Your task to perform on an android device: turn on airplane mode Image 0: 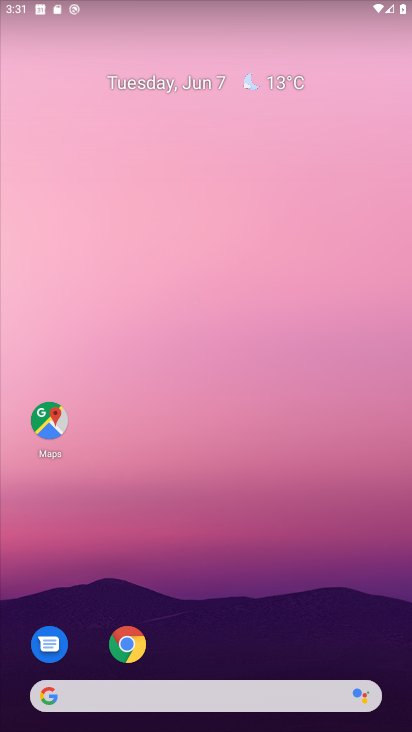
Step 0: drag from (305, 626) to (361, 253)
Your task to perform on an android device: turn on airplane mode Image 1: 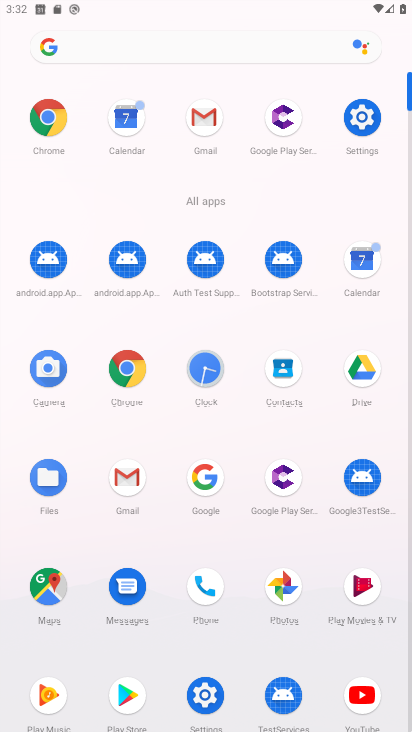
Step 1: click (358, 126)
Your task to perform on an android device: turn on airplane mode Image 2: 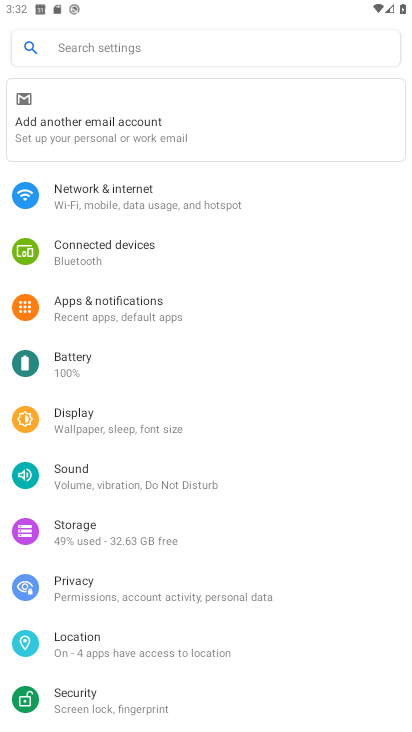
Step 2: drag from (289, 422) to (297, 285)
Your task to perform on an android device: turn on airplane mode Image 3: 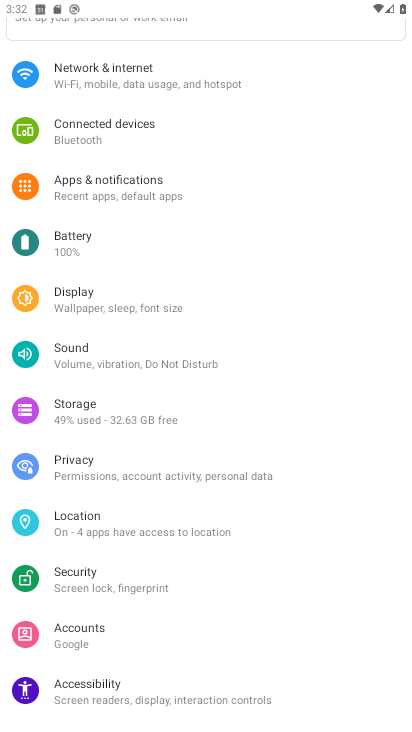
Step 3: drag from (339, 463) to (329, 284)
Your task to perform on an android device: turn on airplane mode Image 4: 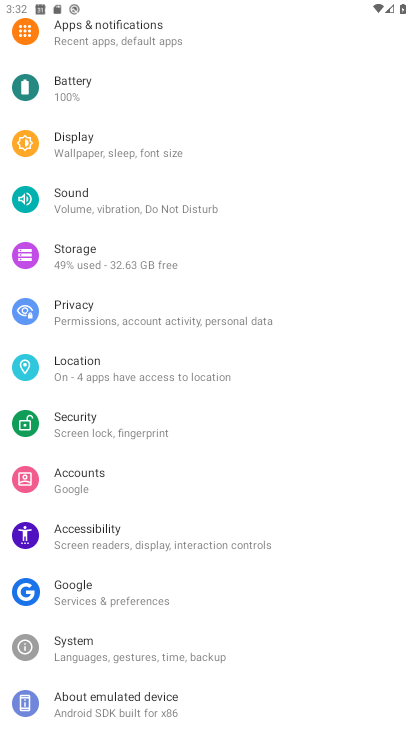
Step 4: drag from (311, 459) to (325, 308)
Your task to perform on an android device: turn on airplane mode Image 5: 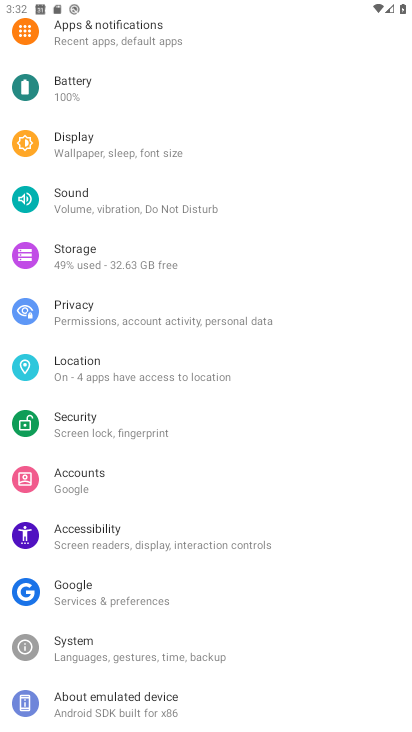
Step 5: drag from (331, 273) to (334, 465)
Your task to perform on an android device: turn on airplane mode Image 6: 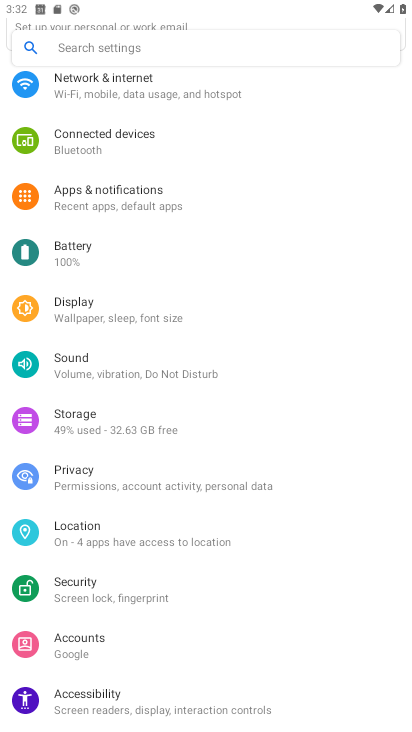
Step 6: drag from (332, 199) to (320, 408)
Your task to perform on an android device: turn on airplane mode Image 7: 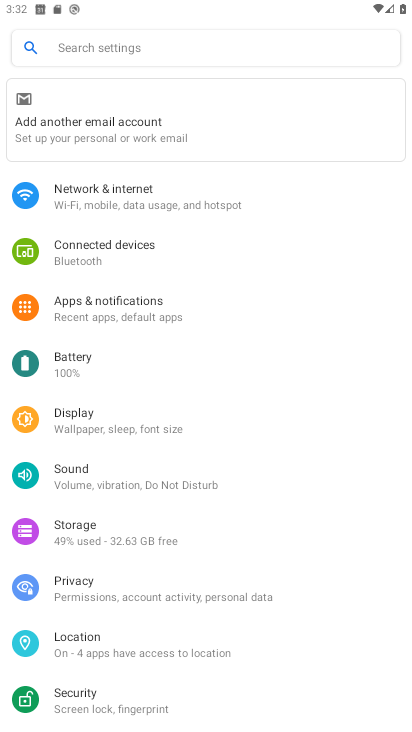
Step 7: drag from (305, 226) to (308, 403)
Your task to perform on an android device: turn on airplane mode Image 8: 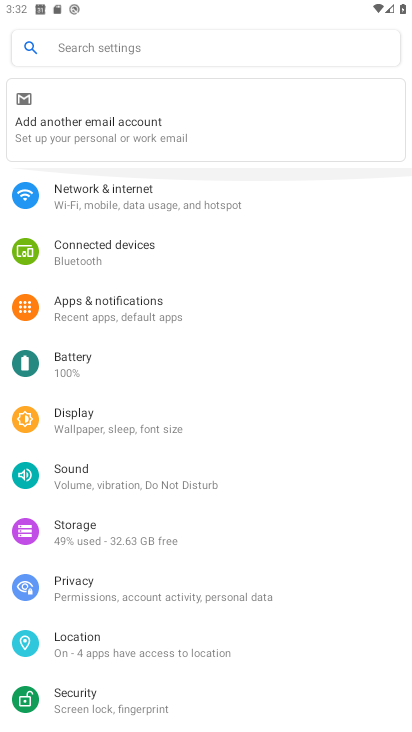
Step 8: click (244, 212)
Your task to perform on an android device: turn on airplane mode Image 9: 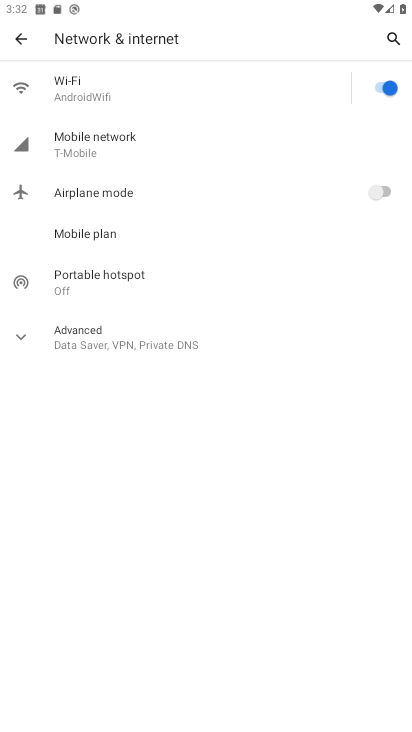
Step 9: click (352, 199)
Your task to perform on an android device: turn on airplane mode Image 10: 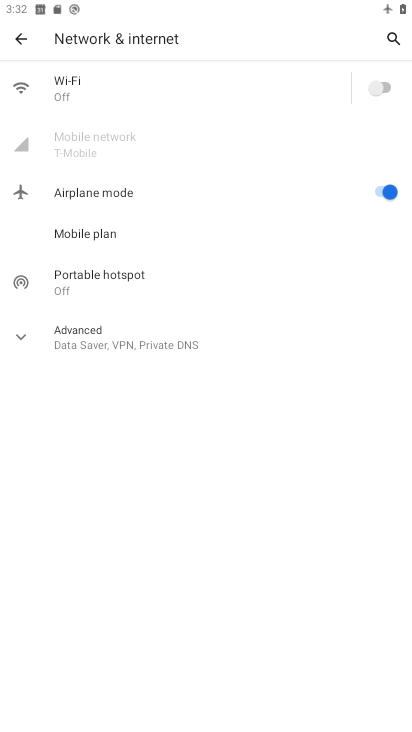
Step 10: task complete